Your task to perform on an android device: toggle sleep mode Image 0: 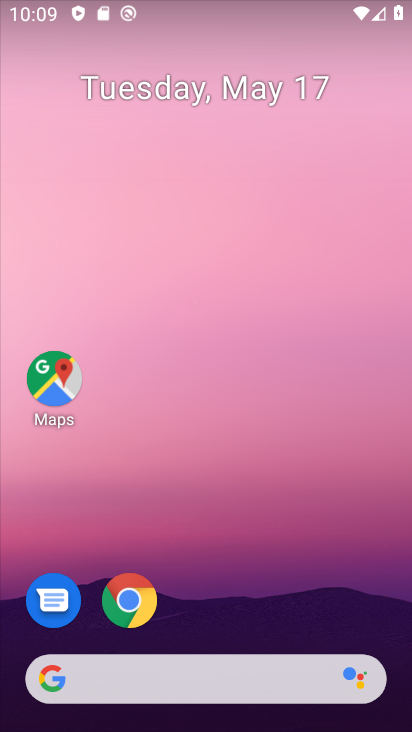
Step 0: drag from (259, 553) to (341, 7)
Your task to perform on an android device: toggle sleep mode Image 1: 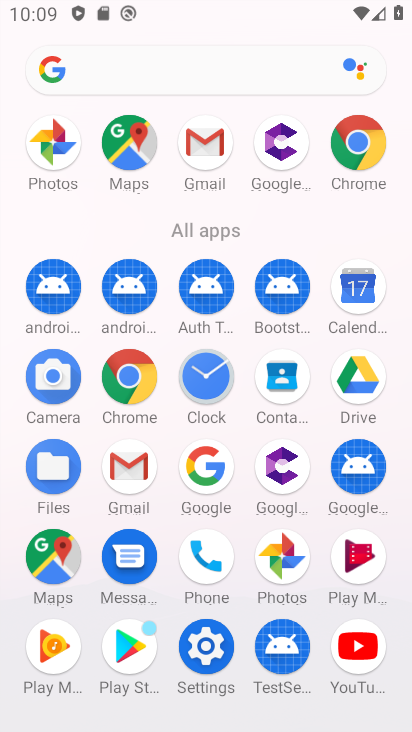
Step 1: click (205, 654)
Your task to perform on an android device: toggle sleep mode Image 2: 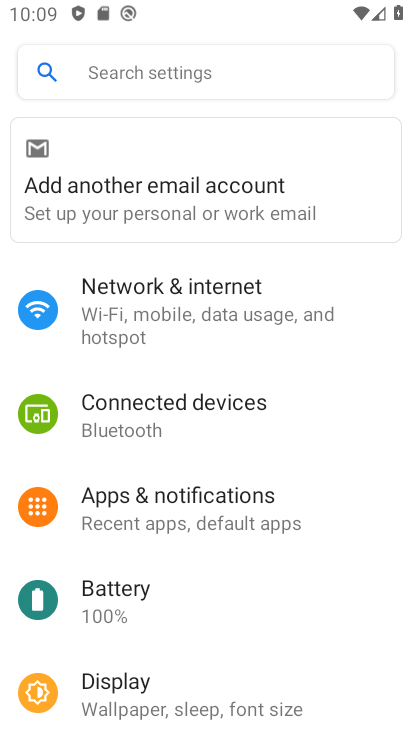
Step 2: click (105, 76)
Your task to perform on an android device: toggle sleep mode Image 3: 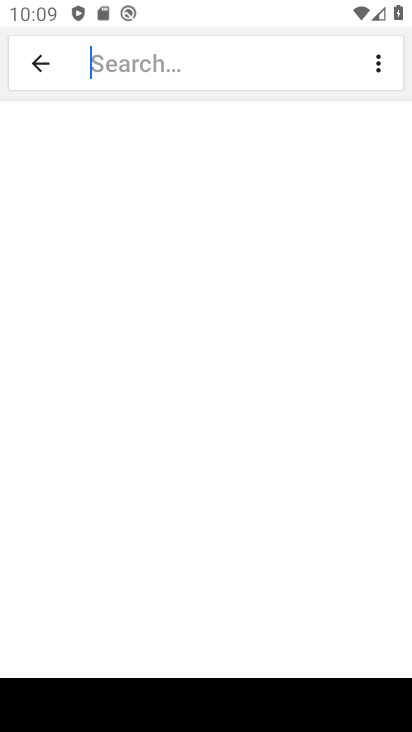
Step 3: type "sleep mode"
Your task to perform on an android device: toggle sleep mode Image 4: 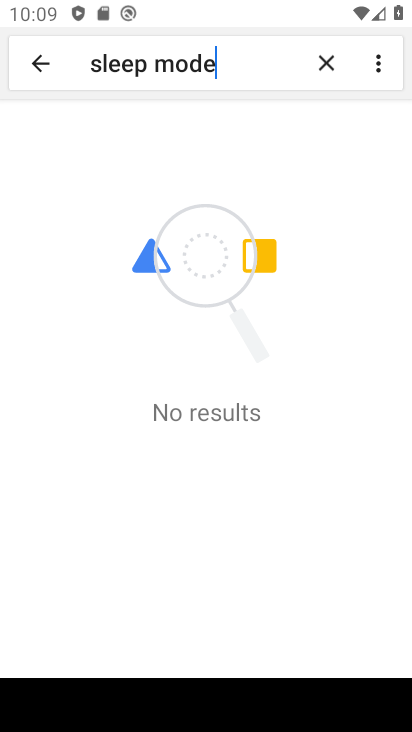
Step 4: task complete